Your task to perform on an android device: Open internet settings Image 0: 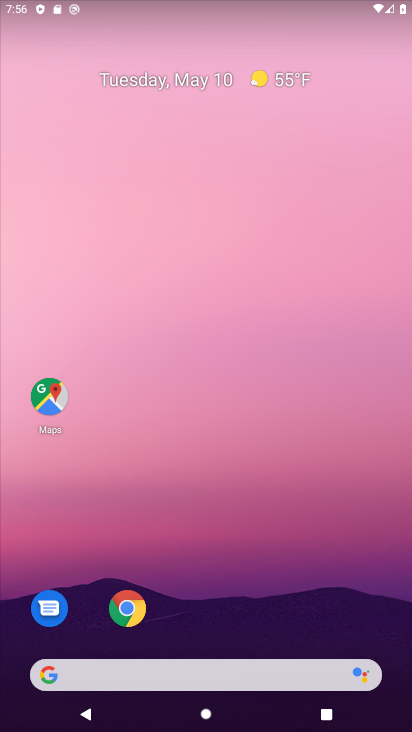
Step 0: drag from (254, 589) to (186, 130)
Your task to perform on an android device: Open internet settings Image 1: 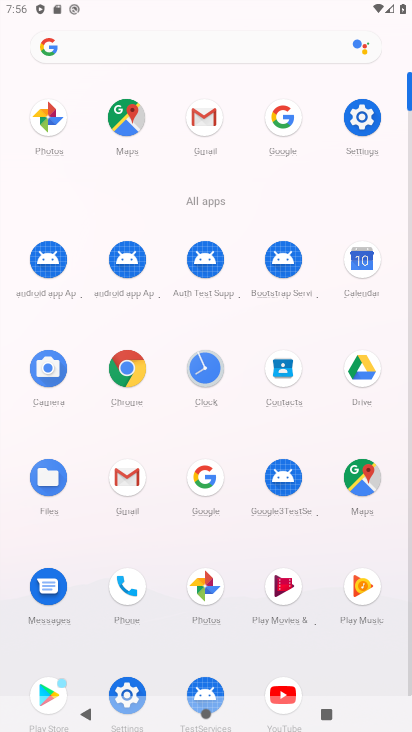
Step 1: click (364, 117)
Your task to perform on an android device: Open internet settings Image 2: 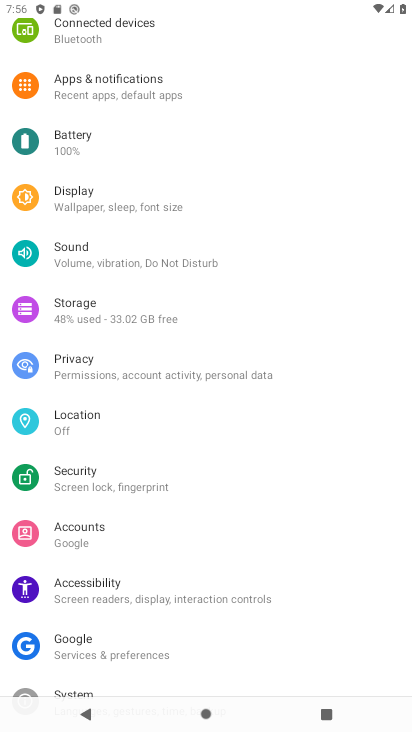
Step 2: drag from (196, 115) to (186, 268)
Your task to perform on an android device: Open internet settings Image 3: 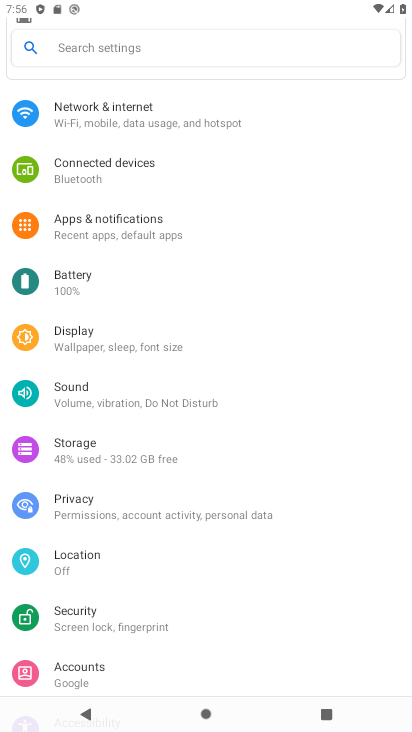
Step 3: click (132, 116)
Your task to perform on an android device: Open internet settings Image 4: 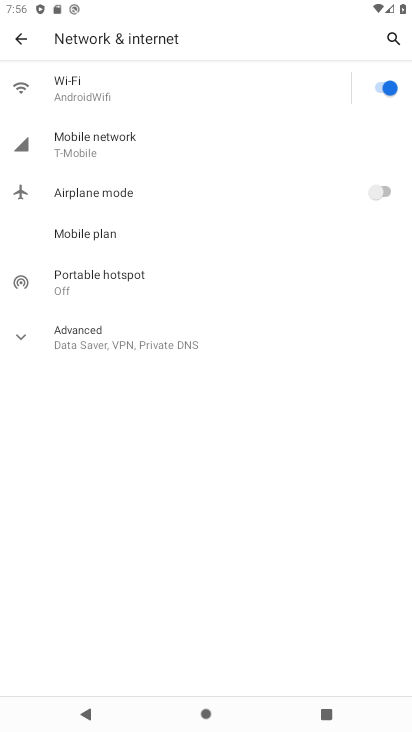
Step 4: task complete